Your task to perform on an android device: Go to CNN.com Image 0: 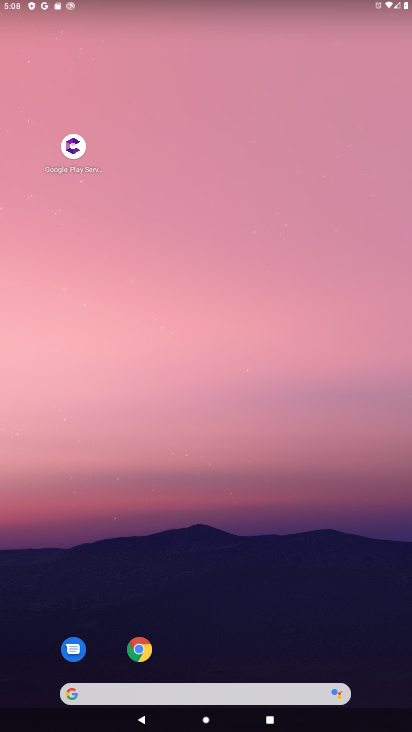
Step 0: drag from (302, 679) to (382, 36)
Your task to perform on an android device: Go to CNN.com Image 1: 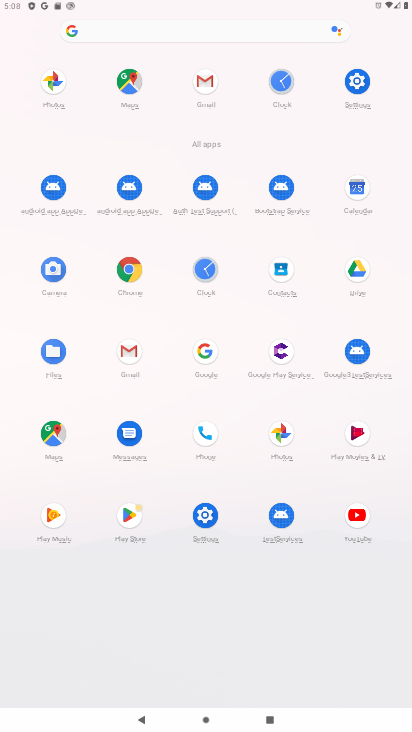
Step 1: click (134, 271)
Your task to perform on an android device: Go to CNN.com Image 2: 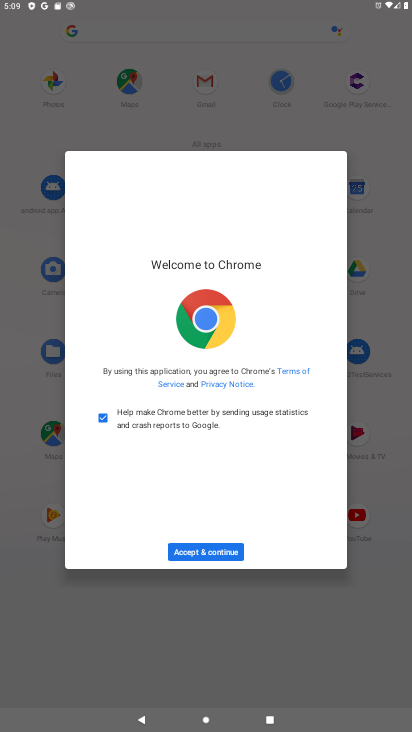
Step 2: click (216, 550)
Your task to perform on an android device: Go to CNN.com Image 3: 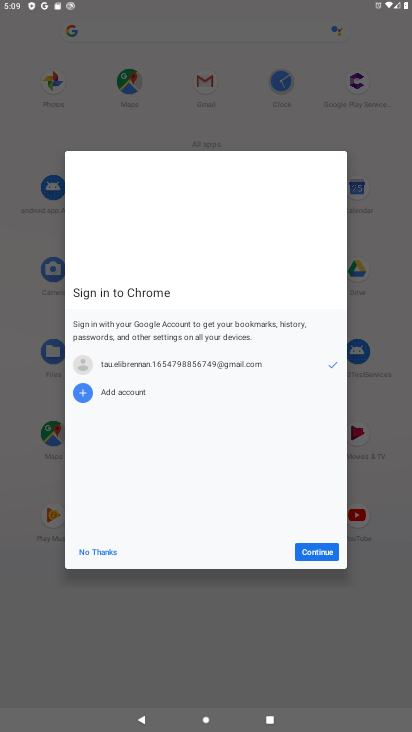
Step 3: click (98, 554)
Your task to perform on an android device: Go to CNN.com Image 4: 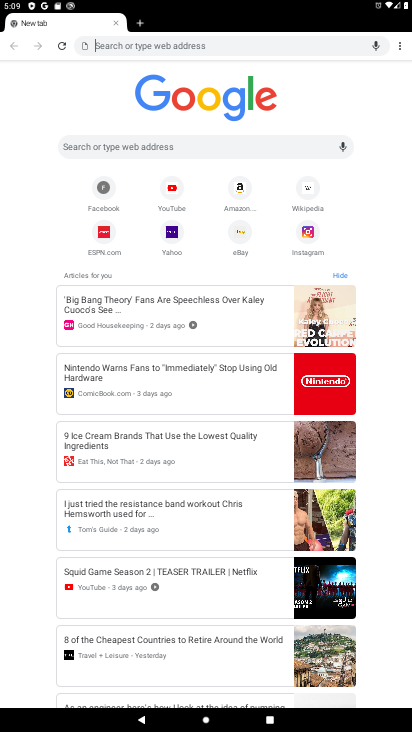
Step 4: click (180, 51)
Your task to perform on an android device: Go to CNN.com Image 5: 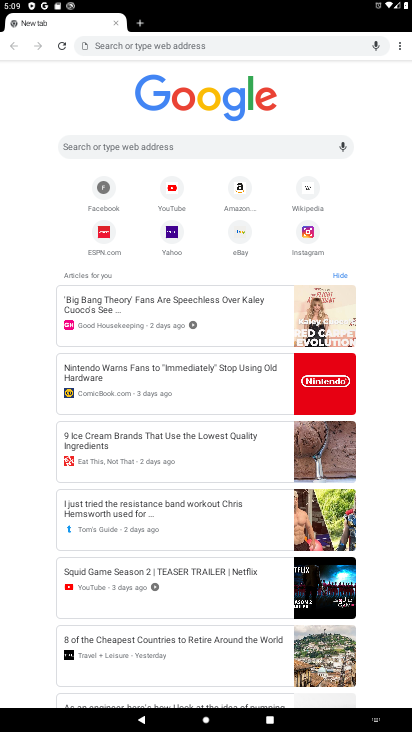
Step 5: type "cnn.com"
Your task to perform on an android device: Go to CNN.com Image 6: 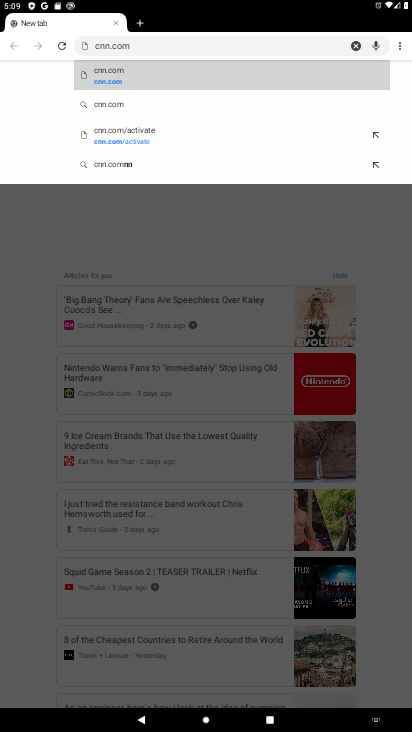
Step 6: click (135, 73)
Your task to perform on an android device: Go to CNN.com Image 7: 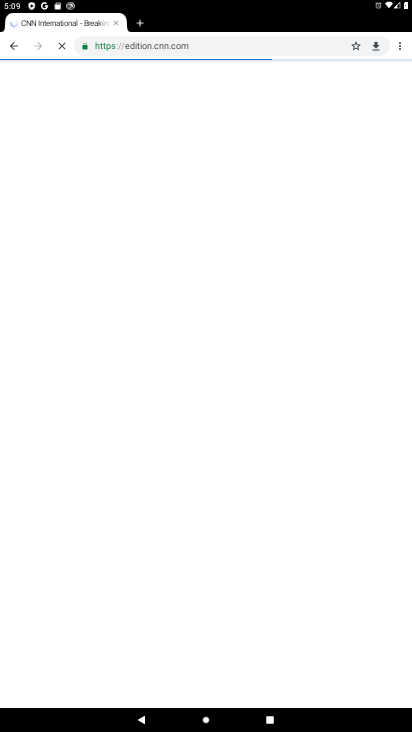
Step 7: task complete